Your task to perform on an android device: allow cookies in the chrome app Image 0: 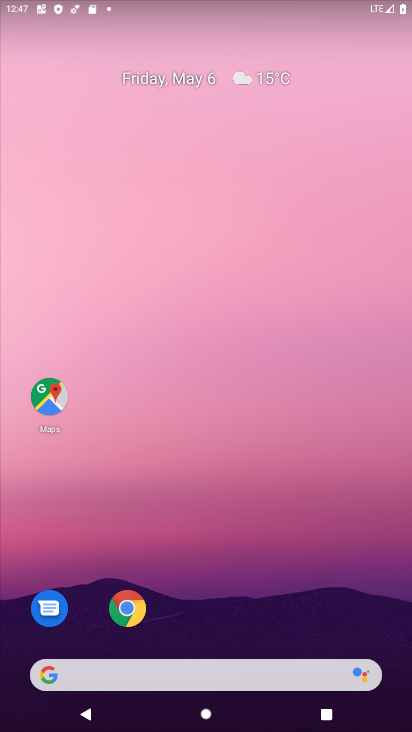
Step 0: drag from (206, 606) to (206, 162)
Your task to perform on an android device: allow cookies in the chrome app Image 1: 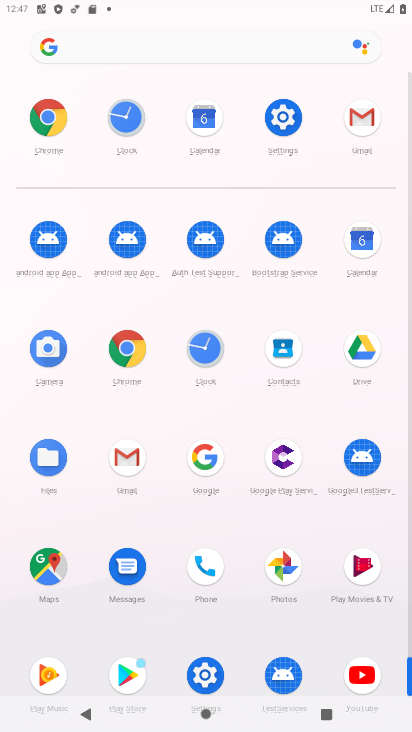
Step 1: drag from (177, 586) to (176, 343)
Your task to perform on an android device: allow cookies in the chrome app Image 2: 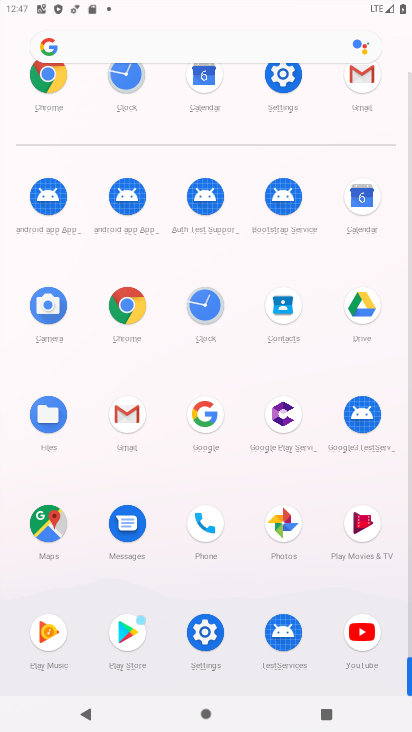
Step 2: click (122, 313)
Your task to perform on an android device: allow cookies in the chrome app Image 3: 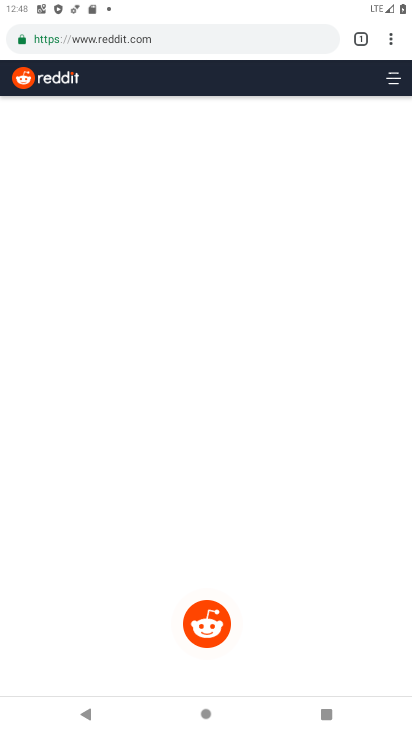
Step 3: click (299, 292)
Your task to perform on an android device: allow cookies in the chrome app Image 4: 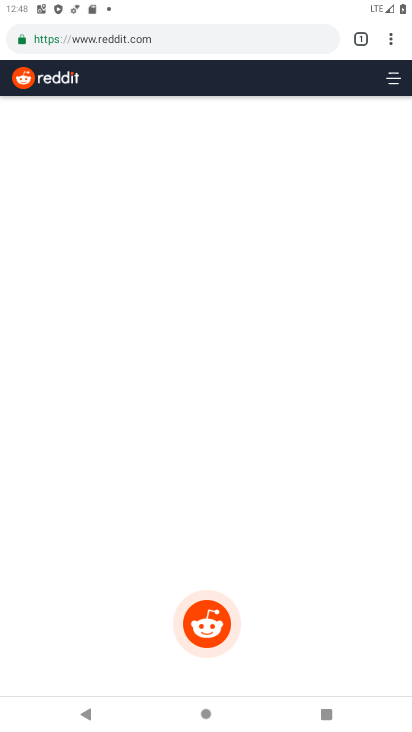
Step 4: drag from (393, 40) to (282, 473)
Your task to perform on an android device: allow cookies in the chrome app Image 5: 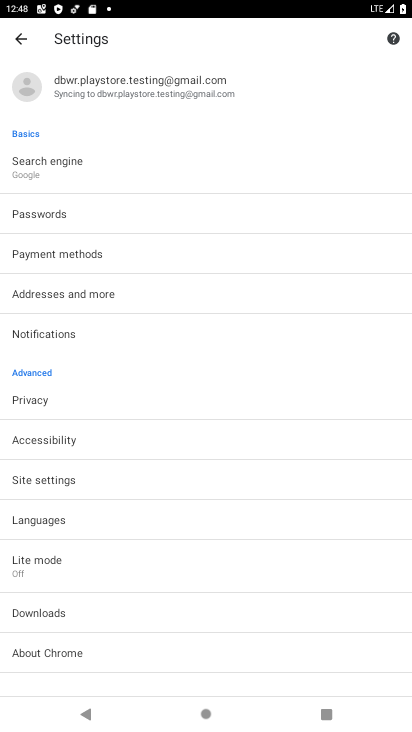
Step 5: click (74, 471)
Your task to perform on an android device: allow cookies in the chrome app Image 6: 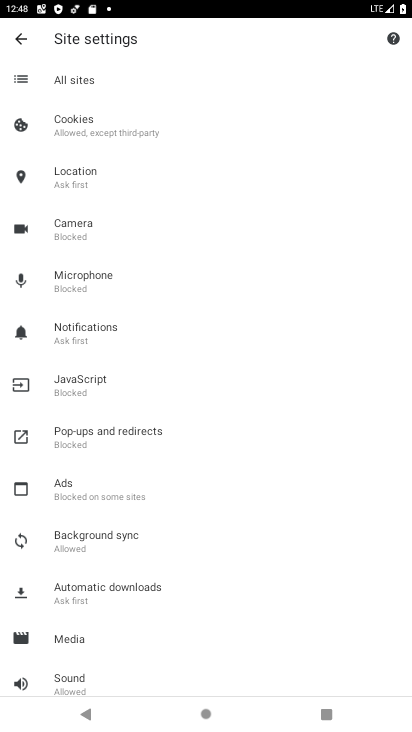
Step 6: click (131, 134)
Your task to perform on an android device: allow cookies in the chrome app Image 7: 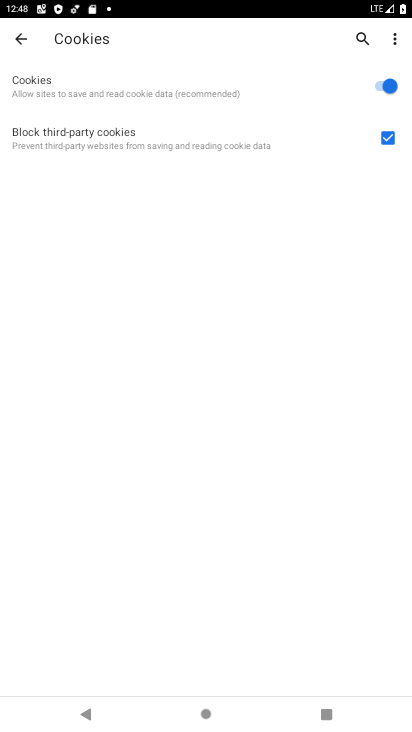
Step 7: task complete